Your task to perform on an android device: set default search engine in the chrome app Image 0: 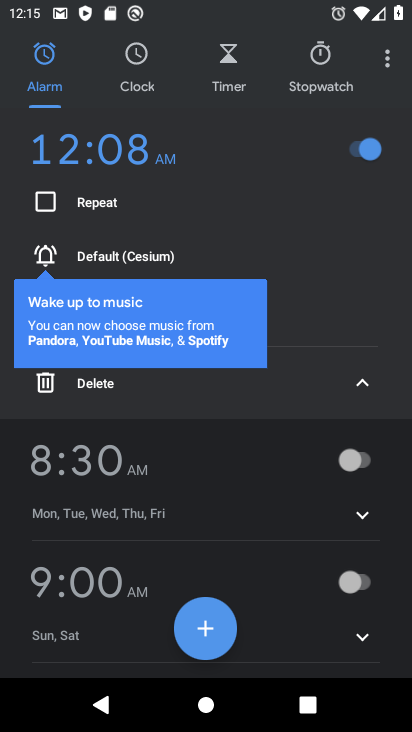
Step 0: press home button
Your task to perform on an android device: set default search engine in the chrome app Image 1: 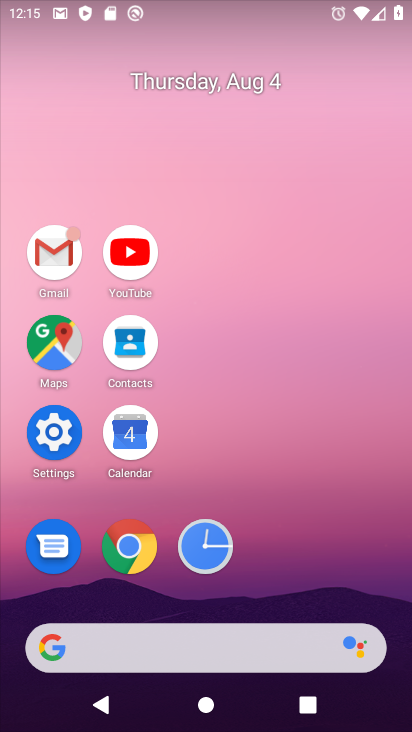
Step 1: click (128, 543)
Your task to perform on an android device: set default search engine in the chrome app Image 2: 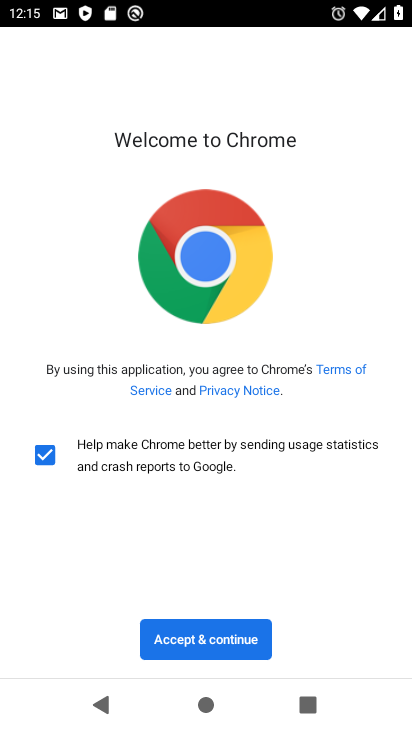
Step 2: click (202, 648)
Your task to perform on an android device: set default search engine in the chrome app Image 3: 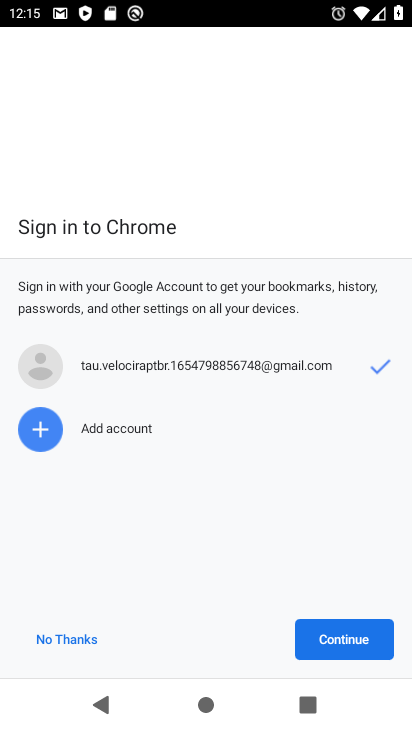
Step 3: click (338, 637)
Your task to perform on an android device: set default search engine in the chrome app Image 4: 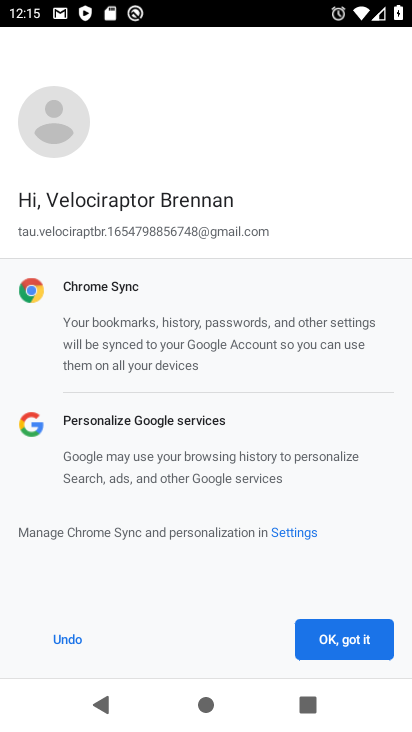
Step 4: click (337, 642)
Your task to perform on an android device: set default search engine in the chrome app Image 5: 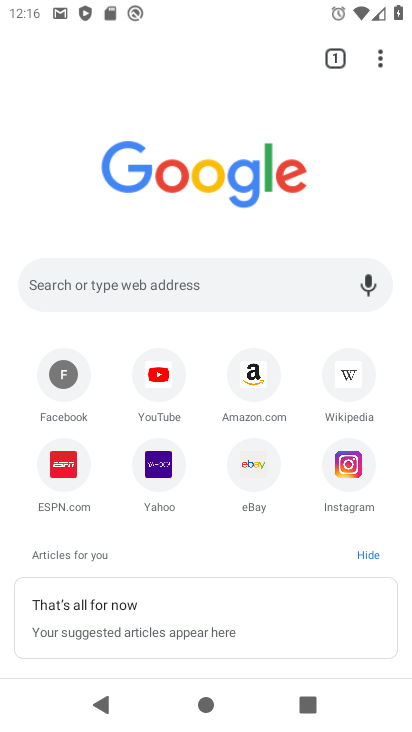
Step 5: click (382, 57)
Your task to perform on an android device: set default search engine in the chrome app Image 6: 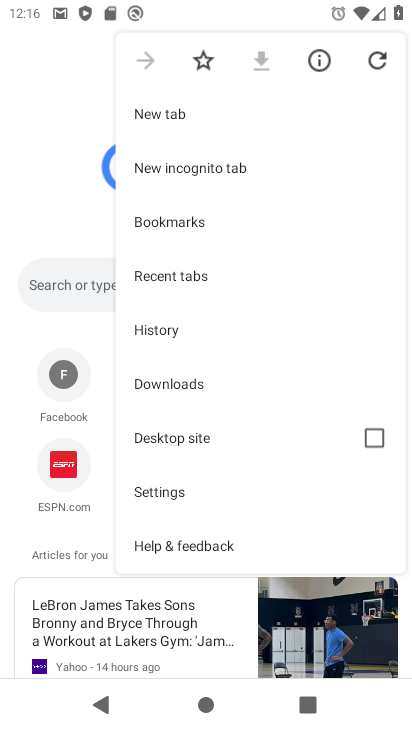
Step 6: click (170, 485)
Your task to perform on an android device: set default search engine in the chrome app Image 7: 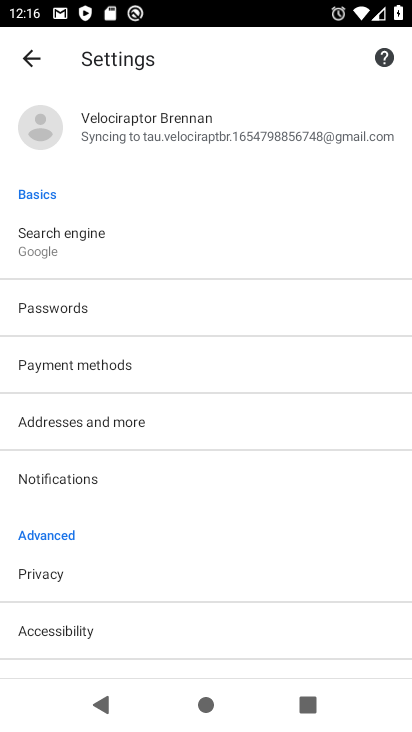
Step 7: click (63, 237)
Your task to perform on an android device: set default search engine in the chrome app Image 8: 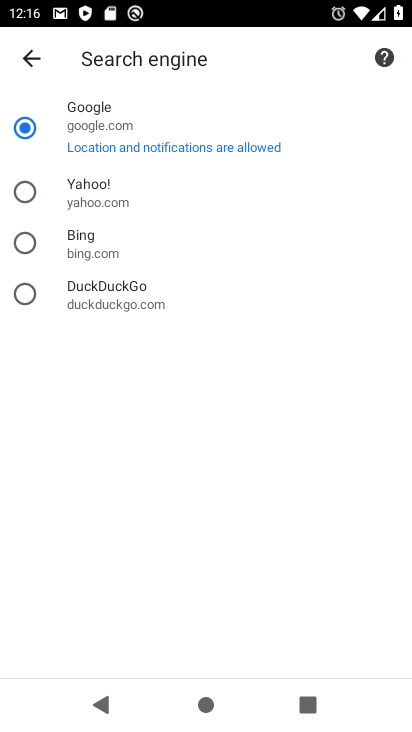
Step 8: task complete